Your task to perform on an android device: What's the weather? Image 0: 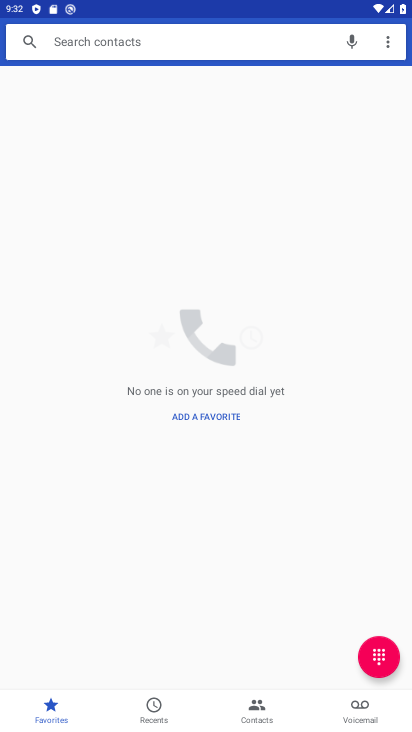
Step 0: press home button
Your task to perform on an android device: What's the weather? Image 1: 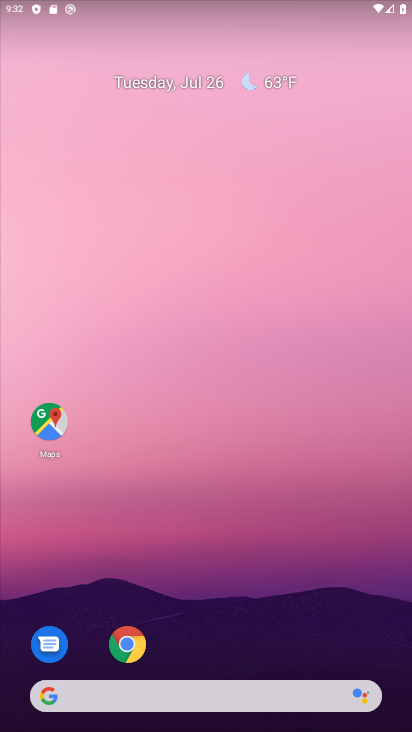
Step 1: click (136, 643)
Your task to perform on an android device: What's the weather? Image 2: 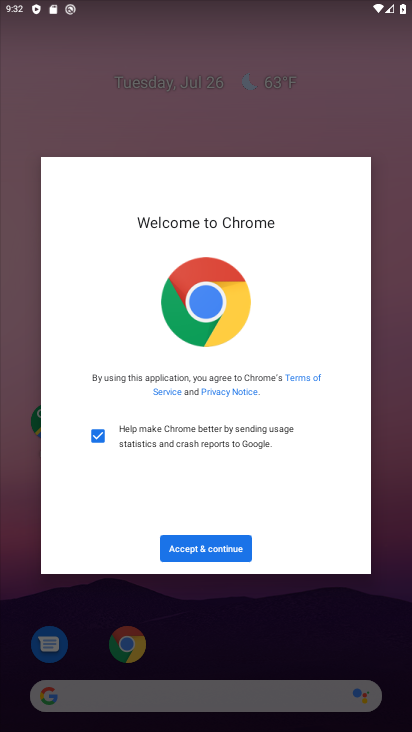
Step 2: click (202, 549)
Your task to perform on an android device: What's the weather? Image 3: 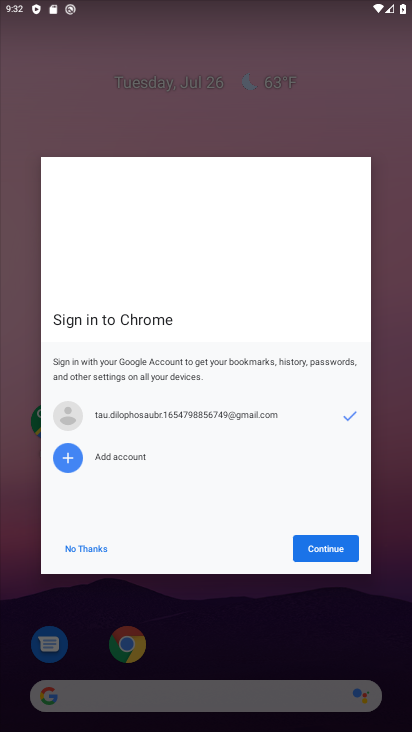
Step 3: click (327, 551)
Your task to perform on an android device: What's the weather? Image 4: 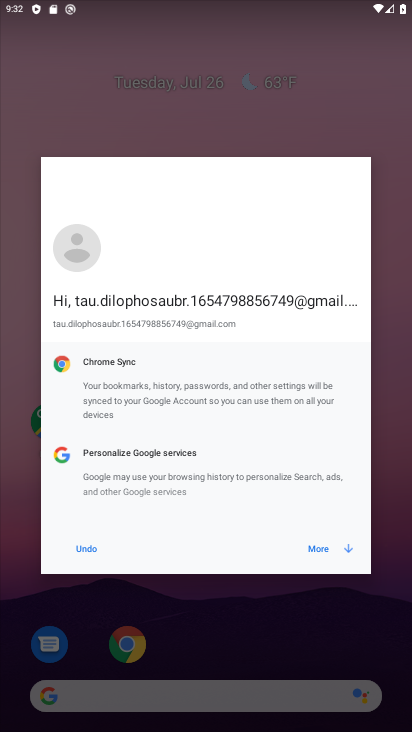
Step 4: click (327, 551)
Your task to perform on an android device: What's the weather? Image 5: 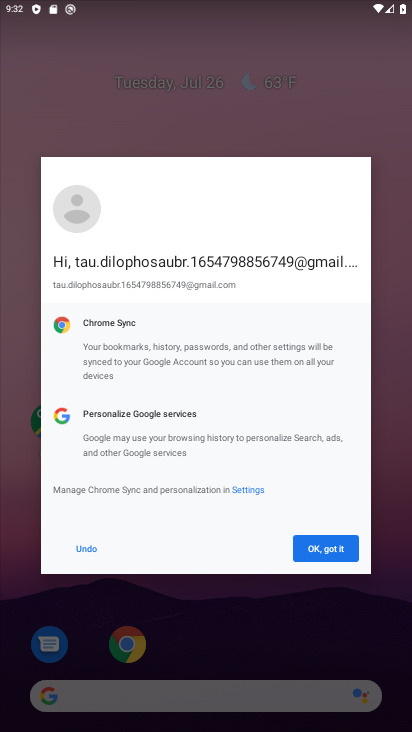
Step 5: click (327, 551)
Your task to perform on an android device: What's the weather? Image 6: 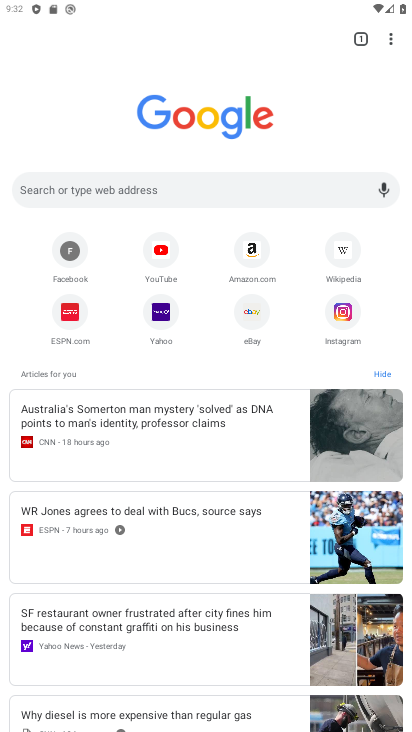
Step 6: click (251, 193)
Your task to perform on an android device: What's the weather? Image 7: 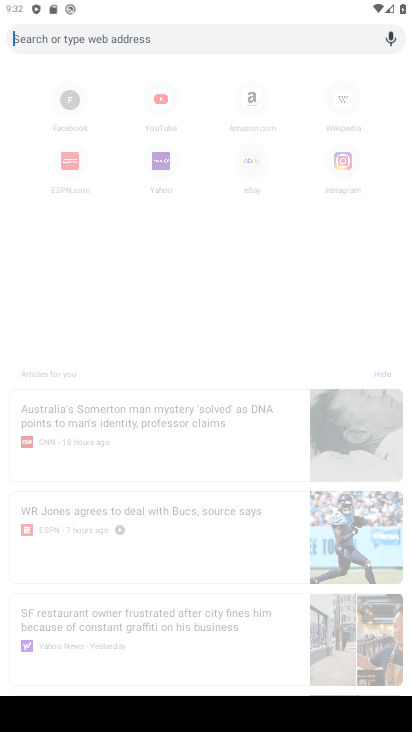
Step 7: type "What's the weather?"
Your task to perform on an android device: What's the weather? Image 8: 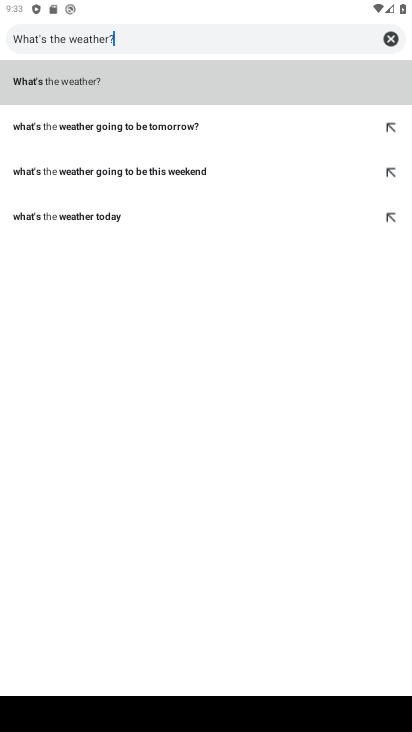
Step 8: click (98, 82)
Your task to perform on an android device: What's the weather? Image 9: 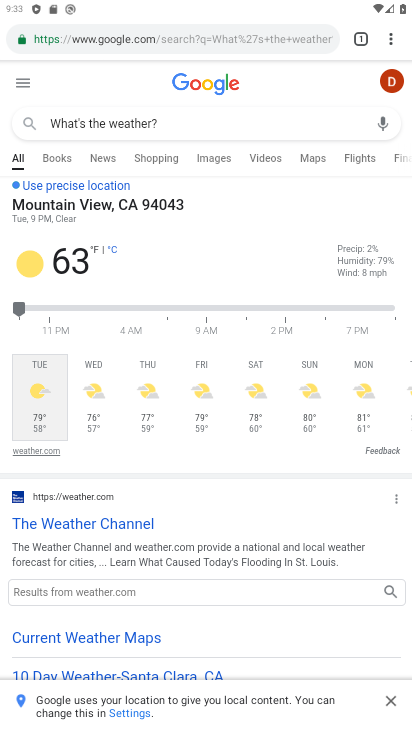
Step 9: task complete